Your task to perform on an android device: Open ESPN.com Image 0: 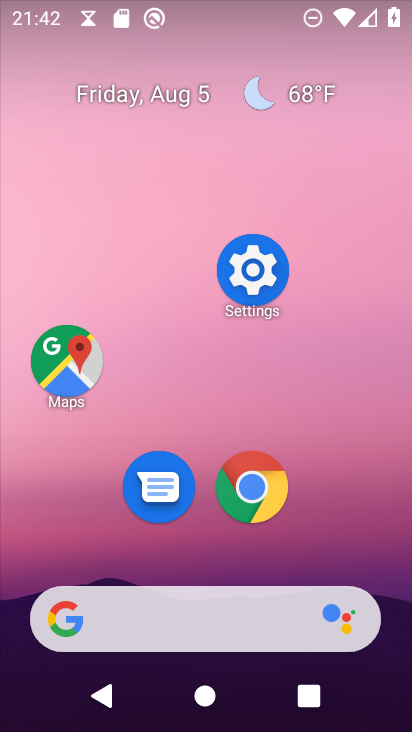
Step 0: press home button
Your task to perform on an android device: Open ESPN.com Image 1: 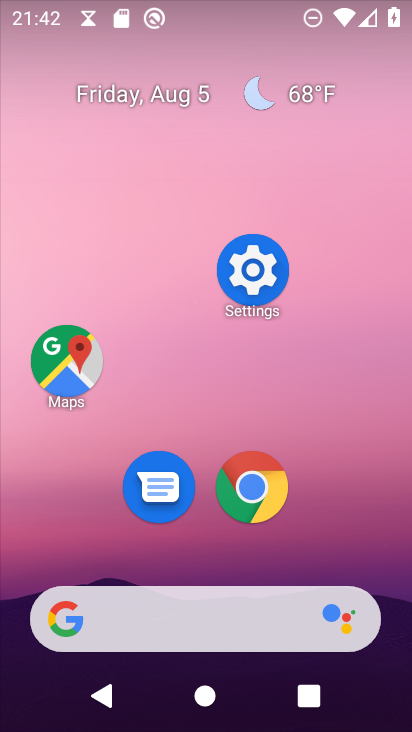
Step 1: click (254, 493)
Your task to perform on an android device: Open ESPN.com Image 2: 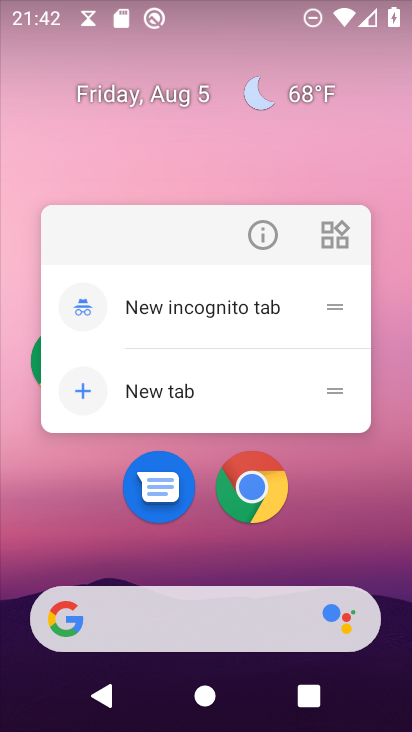
Step 2: click (254, 494)
Your task to perform on an android device: Open ESPN.com Image 3: 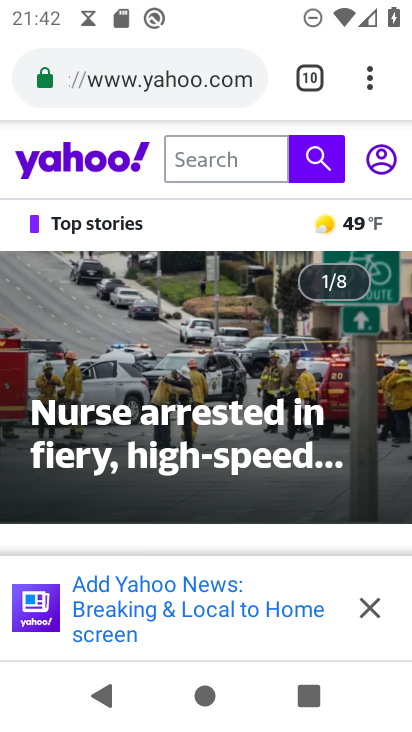
Step 3: drag from (369, 89) to (181, 157)
Your task to perform on an android device: Open ESPN.com Image 4: 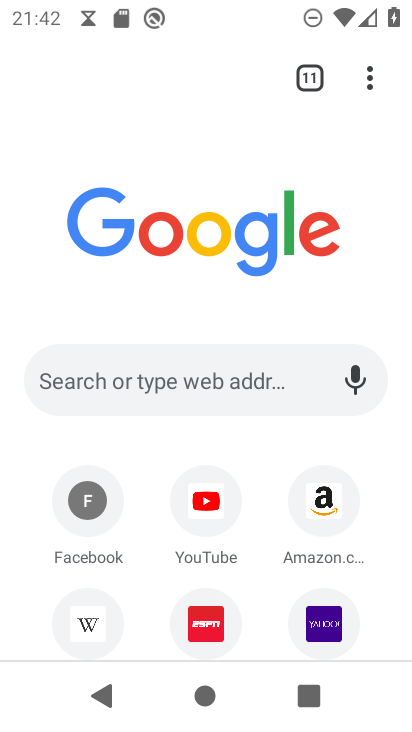
Step 4: drag from (150, 583) to (247, 119)
Your task to perform on an android device: Open ESPN.com Image 5: 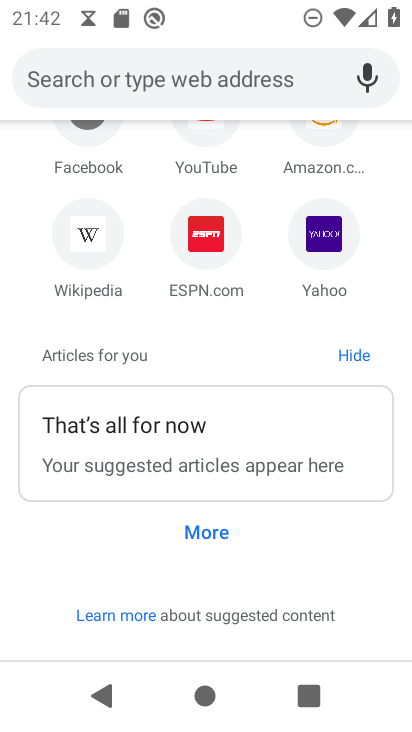
Step 5: click (212, 225)
Your task to perform on an android device: Open ESPN.com Image 6: 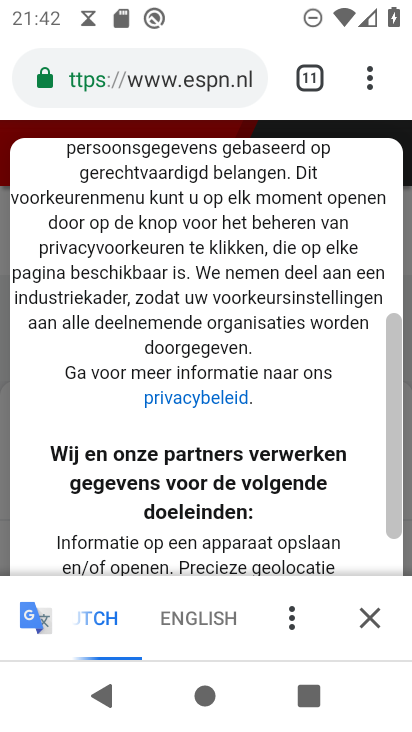
Step 6: click (212, 617)
Your task to perform on an android device: Open ESPN.com Image 7: 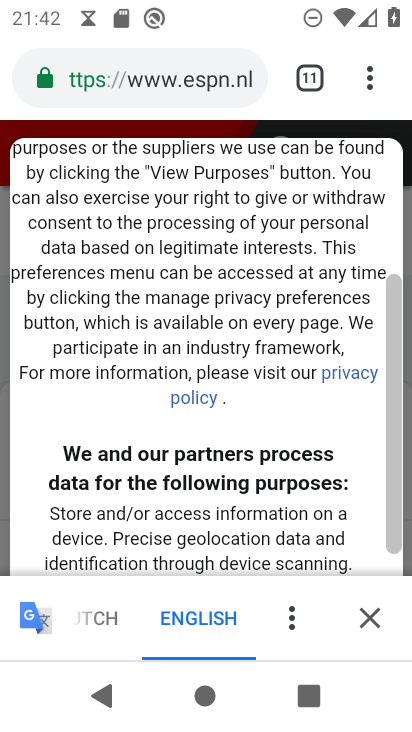
Step 7: drag from (248, 494) to (340, 144)
Your task to perform on an android device: Open ESPN.com Image 8: 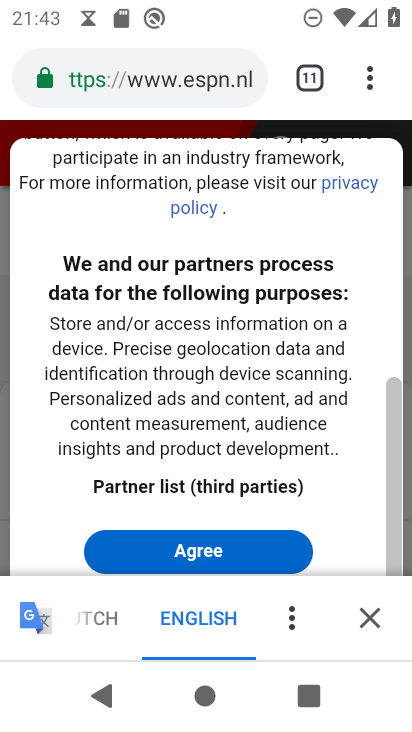
Step 8: click (224, 545)
Your task to perform on an android device: Open ESPN.com Image 9: 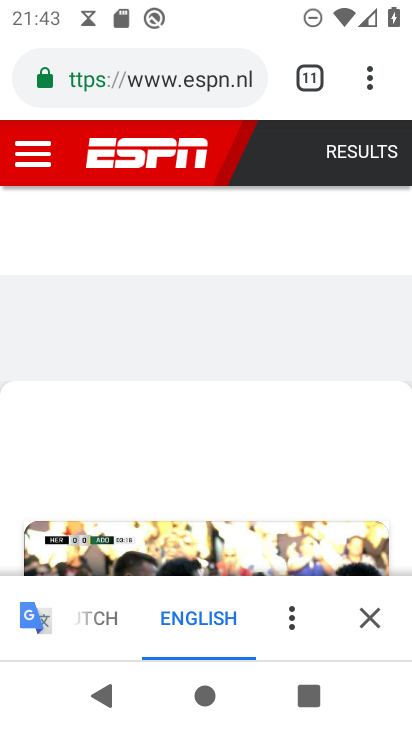
Step 9: task complete